Your task to perform on an android device: add a label to a message in the gmail app Image 0: 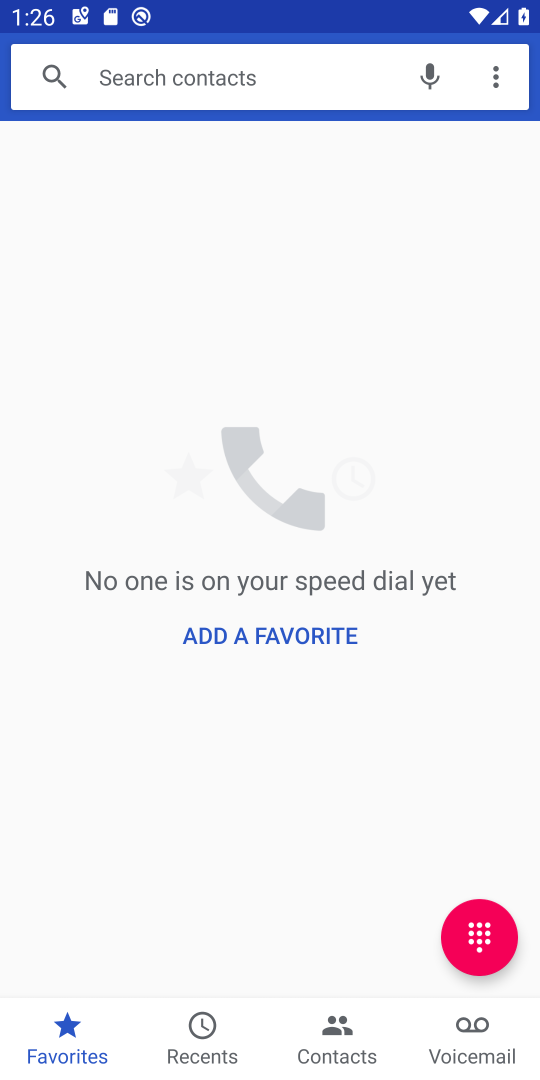
Step 0: press home button
Your task to perform on an android device: add a label to a message in the gmail app Image 1: 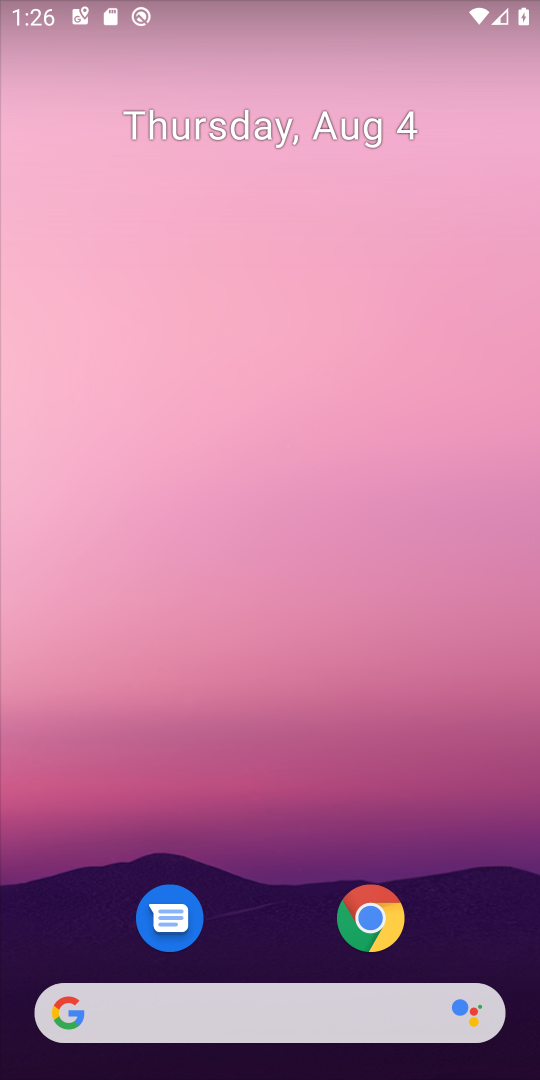
Step 1: drag from (253, 929) to (280, 205)
Your task to perform on an android device: add a label to a message in the gmail app Image 2: 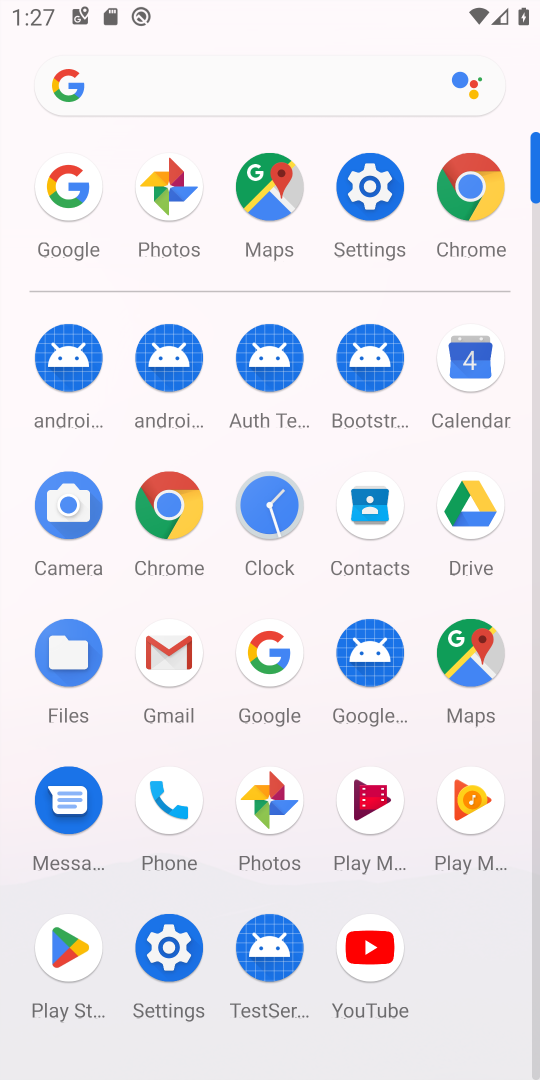
Step 2: click (182, 678)
Your task to perform on an android device: add a label to a message in the gmail app Image 3: 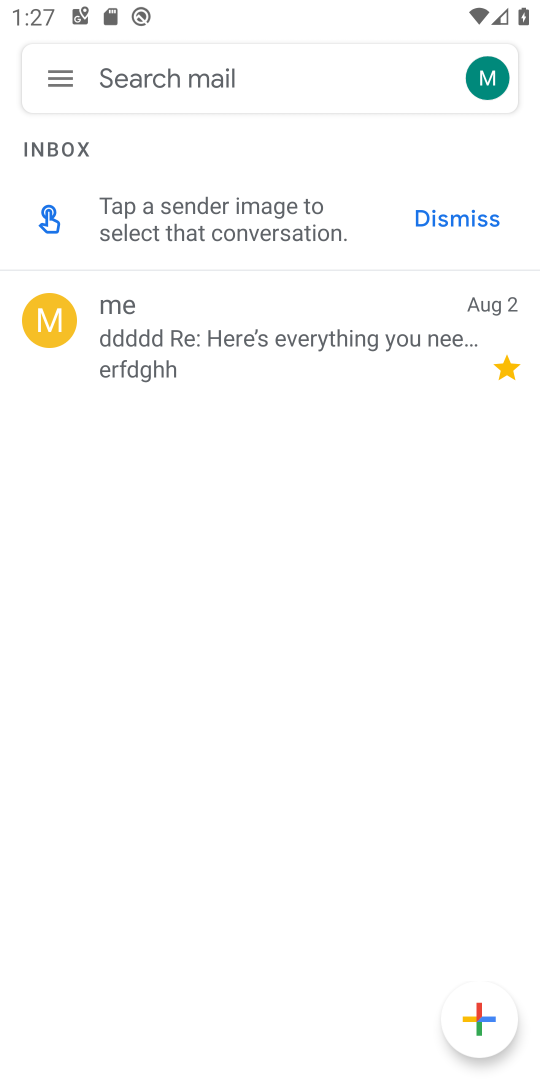
Step 3: click (232, 354)
Your task to perform on an android device: add a label to a message in the gmail app Image 4: 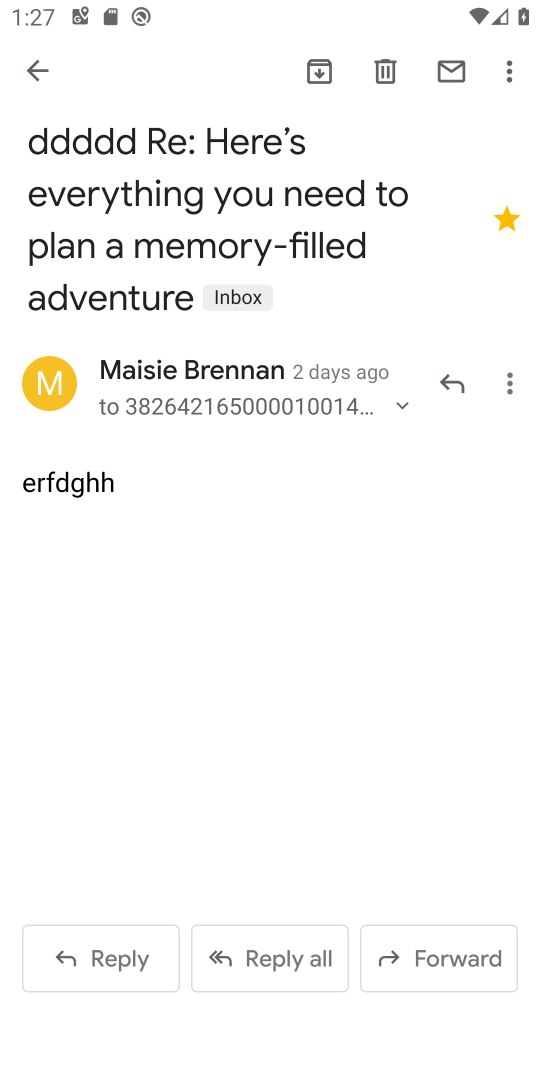
Step 4: click (519, 72)
Your task to perform on an android device: add a label to a message in the gmail app Image 5: 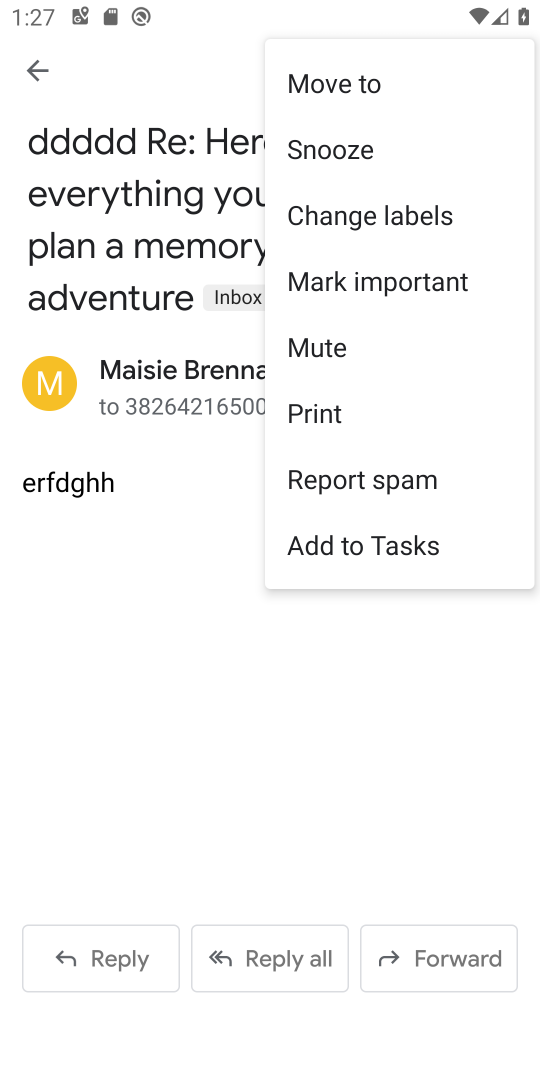
Step 5: click (384, 213)
Your task to perform on an android device: add a label to a message in the gmail app Image 6: 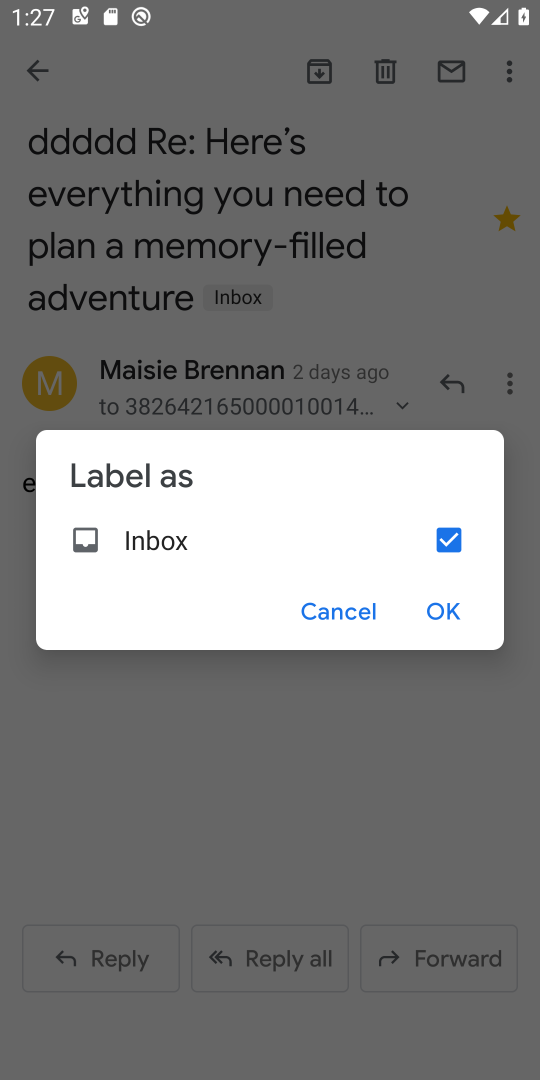
Step 6: click (434, 599)
Your task to perform on an android device: add a label to a message in the gmail app Image 7: 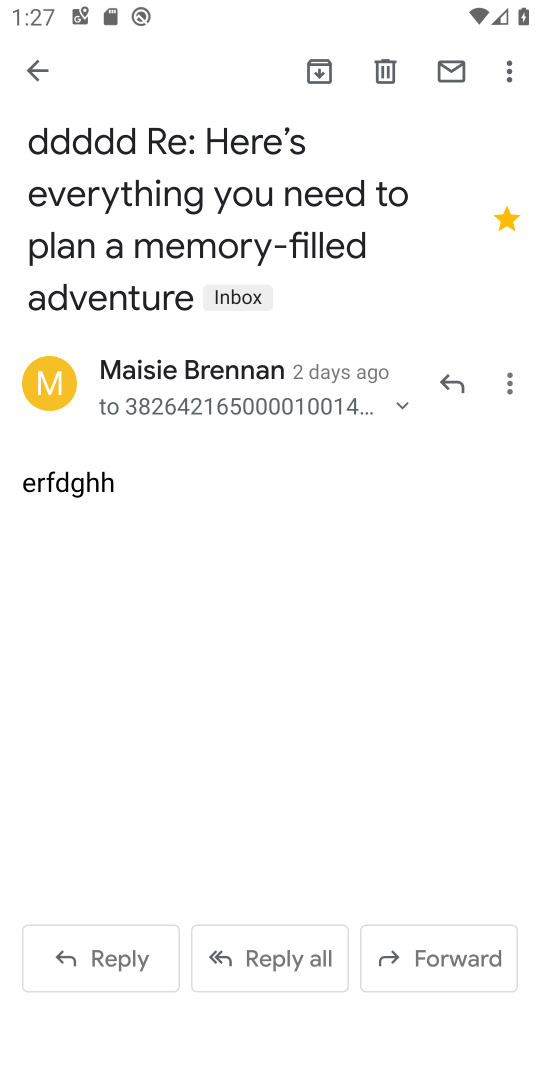
Step 7: task complete